Your task to perform on an android device: Show me productivity apps on the Play Store Image 0: 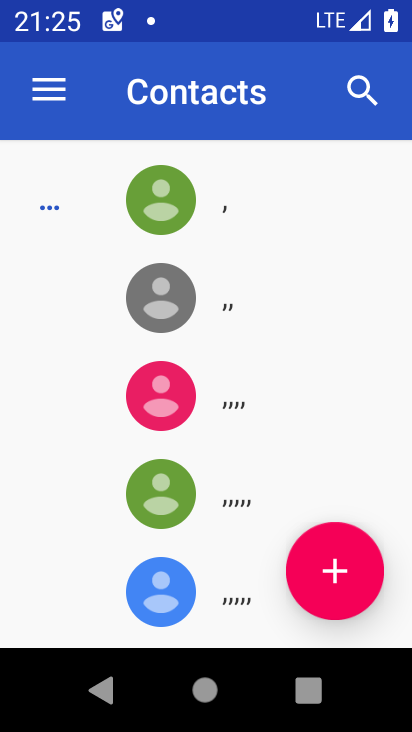
Step 0: press home button
Your task to perform on an android device: Show me productivity apps on the Play Store Image 1: 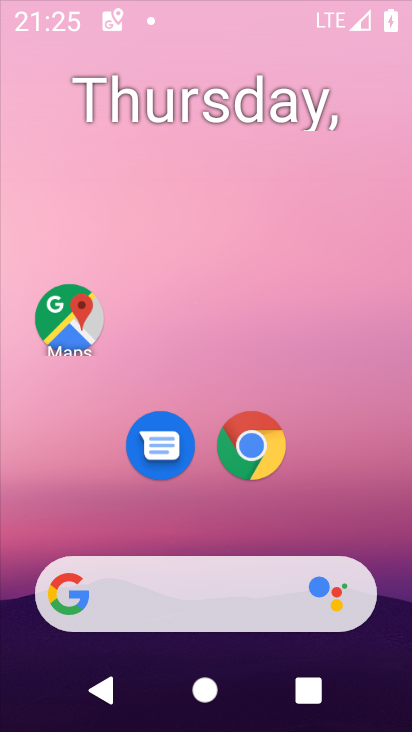
Step 1: drag from (201, 593) to (321, 124)
Your task to perform on an android device: Show me productivity apps on the Play Store Image 2: 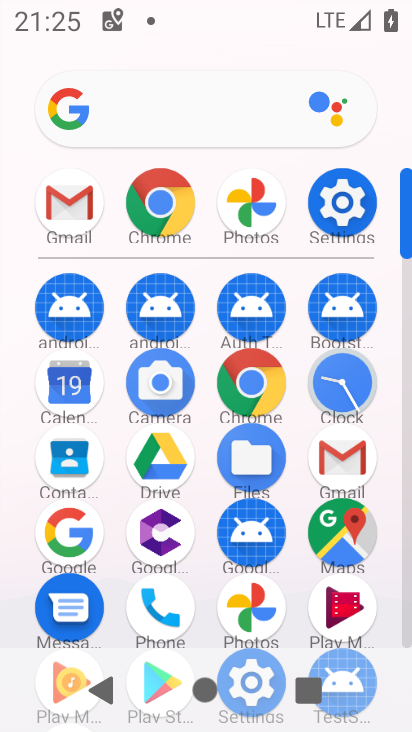
Step 2: drag from (198, 623) to (192, 262)
Your task to perform on an android device: Show me productivity apps on the Play Store Image 3: 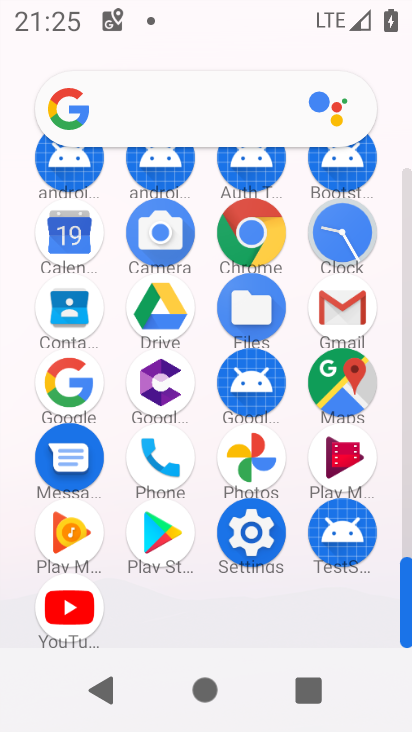
Step 3: click (160, 533)
Your task to perform on an android device: Show me productivity apps on the Play Store Image 4: 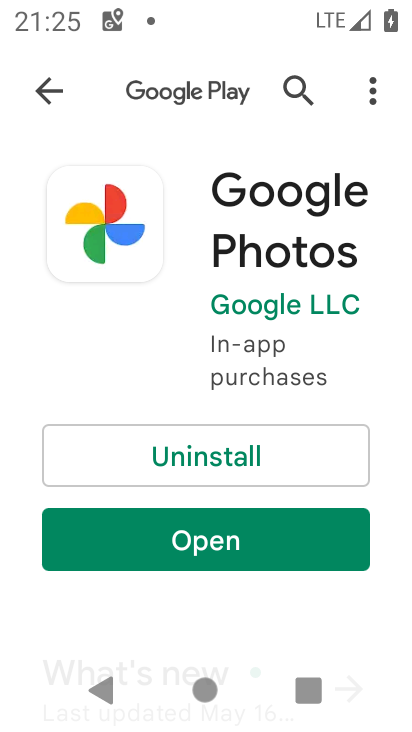
Step 4: drag from (241, 618) to (255, 410)
Your task to perform on an android device: Show me productivity apps on the Play Store Image 5: 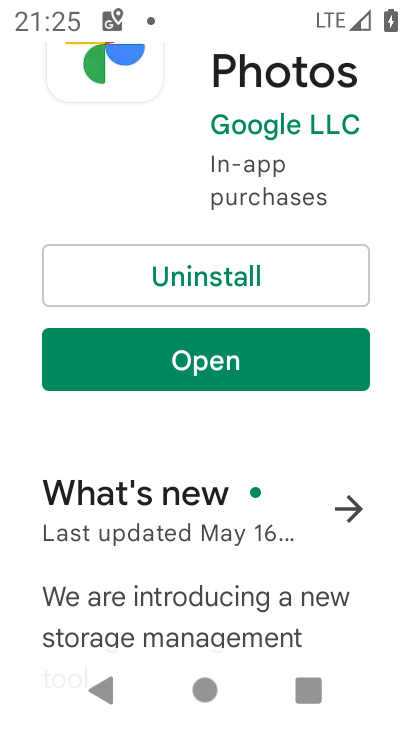
Step 5: drag from (188, 427) to (283, 669)
Your task to perform on an android device: Show me productivity apps on the Play Store Image 6: 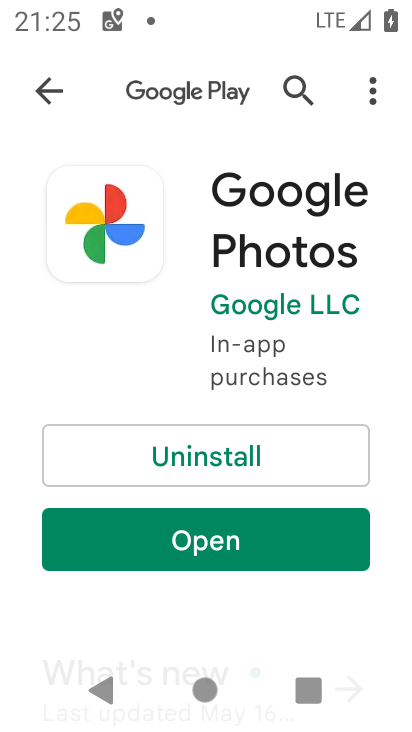
Step 6: click (41, 91)
Your task to perform on an android device: Show me productivity apps on the Play Store Image 7: 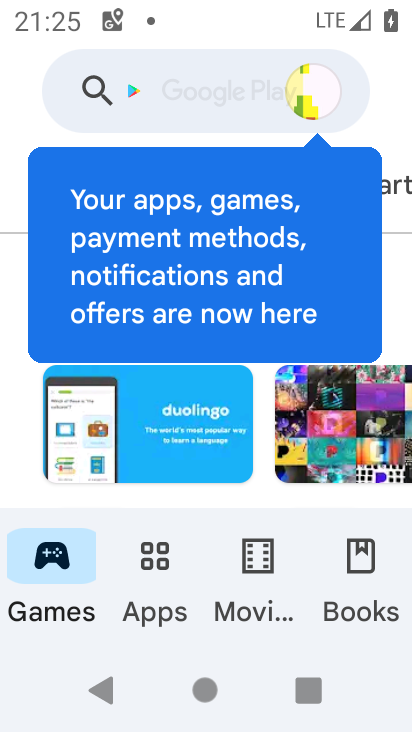
Step 7: click (161, 553)
Your task to perform on an android device: Show me productivity apps on the Play Store Image 8: 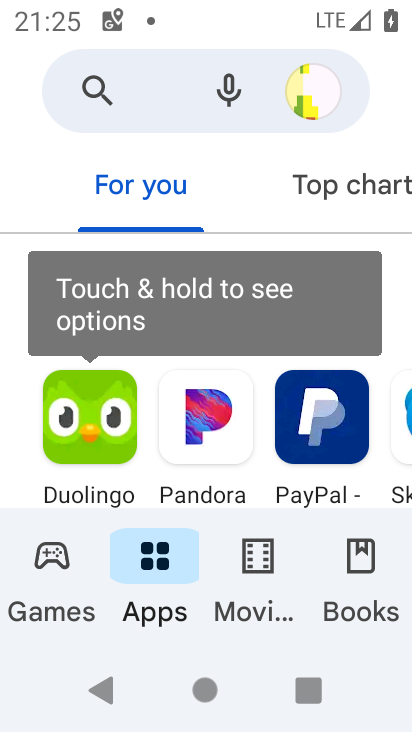
Step 8: task complete